Your task to perform on an android device: Open Amazon Image 0: 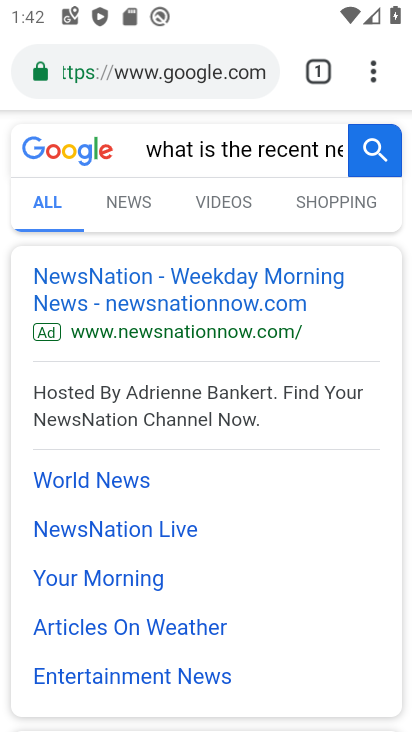
Step 0: press home button
Your task to perform on an android device: Open Amazon Image 1: 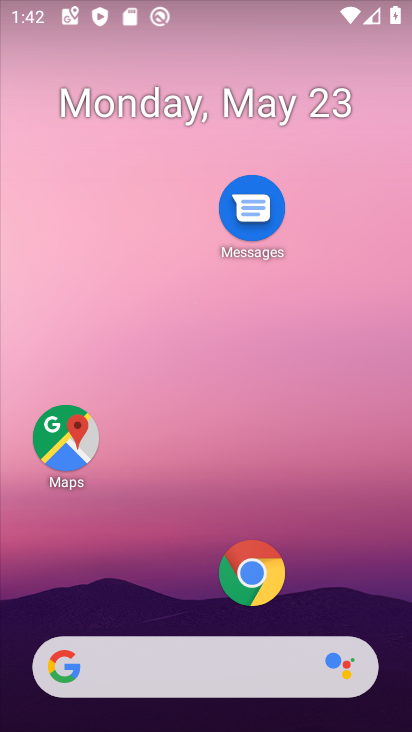
Step 1: drag from (124, 582) to (151, 197)
Your task to perform on an android device: Open Amazon Image 2: 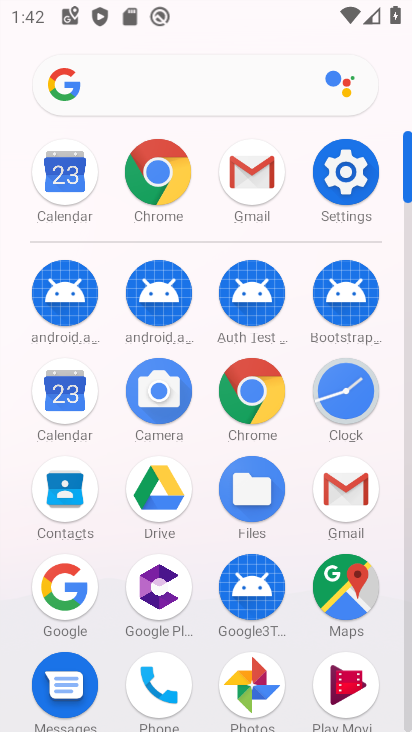
Step 2: drag from (376, 542) to (380, 279)
Your task to perform on an android device: Open Amazon Image 3: 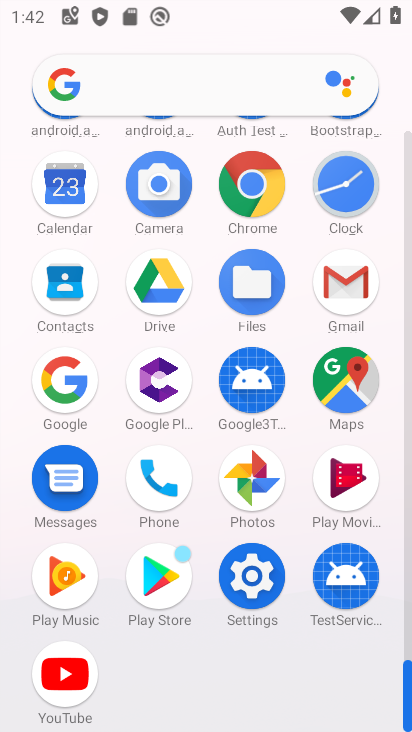
Step 3: drag from (223, 672) to (246, 412)
Your task to perform on an android device: Open Amazon Image 4: 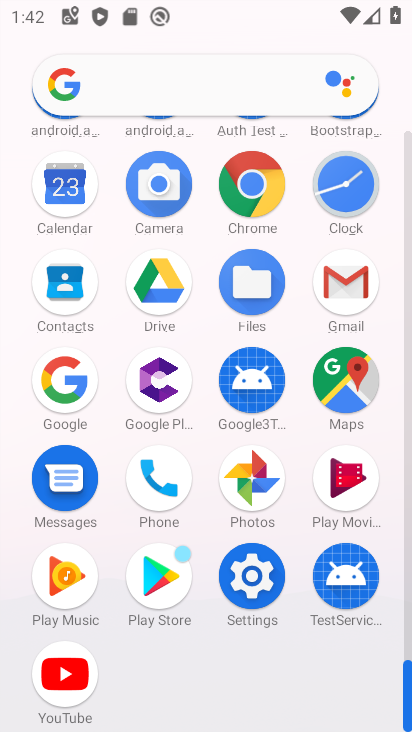
Step 4: drag from (223, 259) to (293, 638)
Your task to perform on an android device: Open Amazon Image 5: 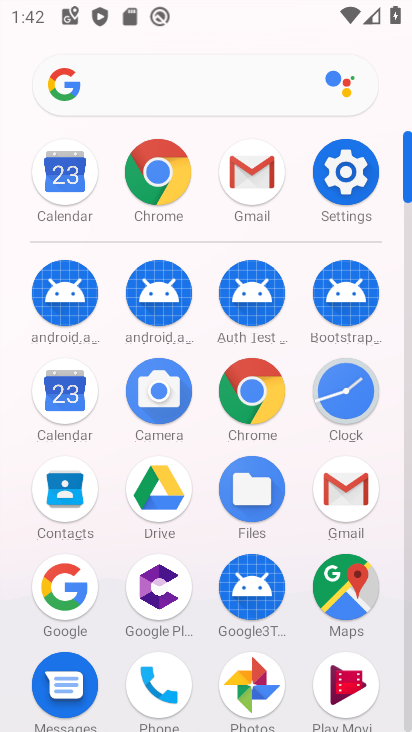
Step 5: click (162, 173)
Your task to perform on an android device: Open Amazon Image 6: 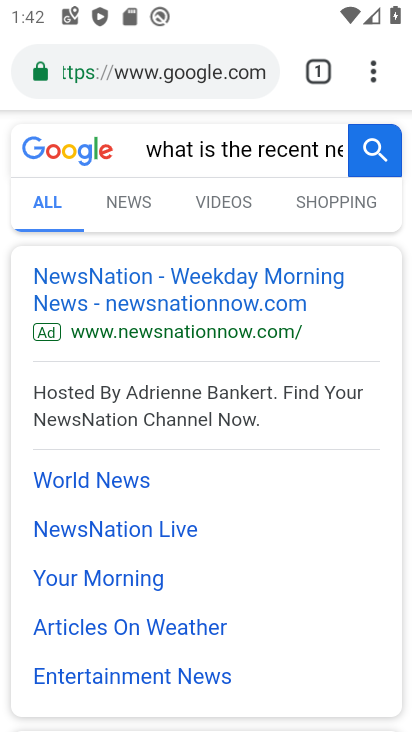
Step 6: click (264, 78)
Your task to perform on an android device: Open Amazon Image 7: 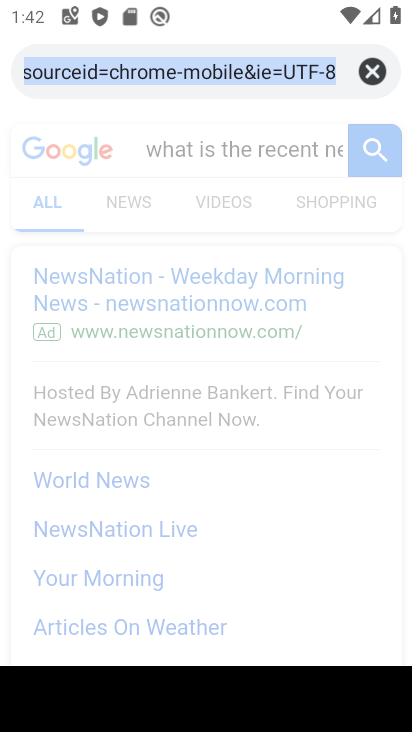
Step 7: click (382, 72)
Your task to perform on an android device: Open Amazon Image 8: 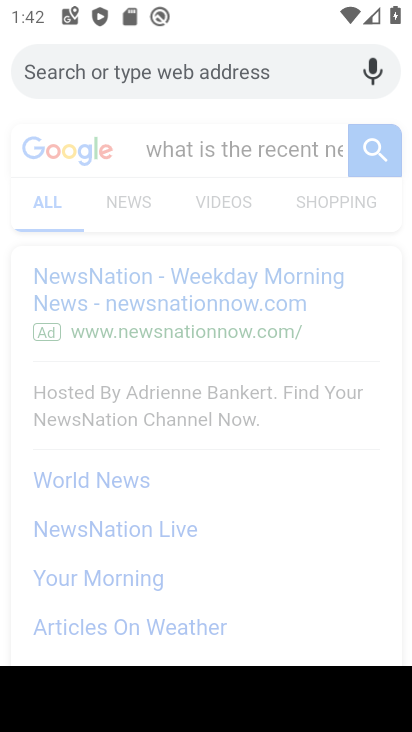
Step 8: type "amazon"
Your task to perform on an android device: Open Amazon Image 9: 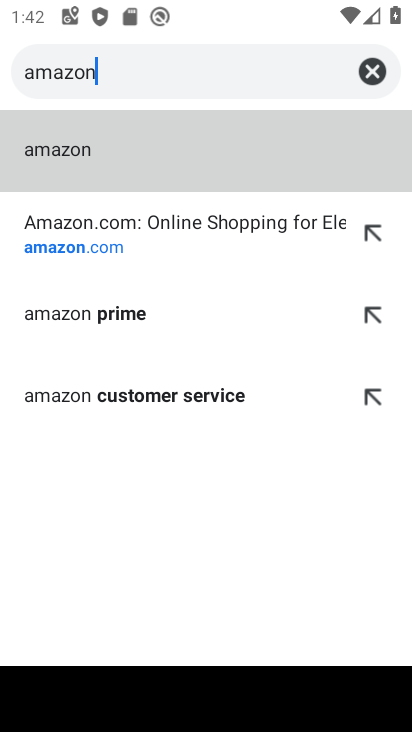
Step 9: click (56, 158)
Your task to perform on an android device: Open Amazon Image 10: 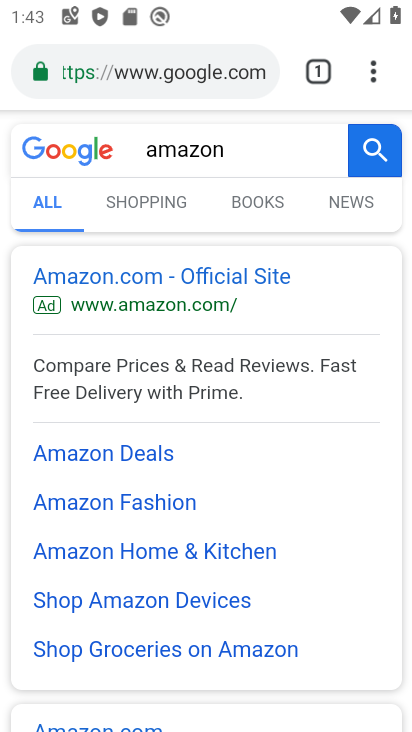
Step 10: click (220, 269)
Your task to perform on an android device: Open Amazon Image 11: 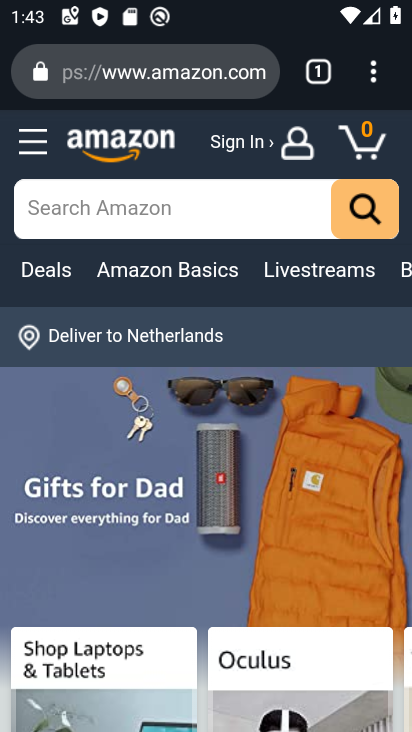
Step 11: task complete